Your task to perform on an android device: remove spam from my inbox in the gmail app Image 0: 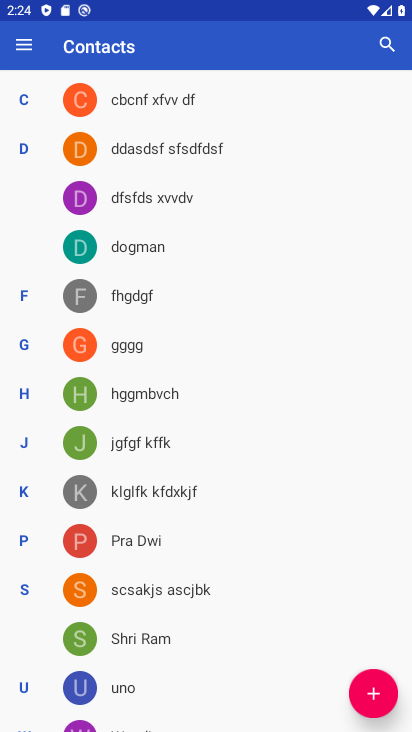
Step 0: press home button
Your task to perform on an android device: remove spam from my inbox in the gmail app Image 1: 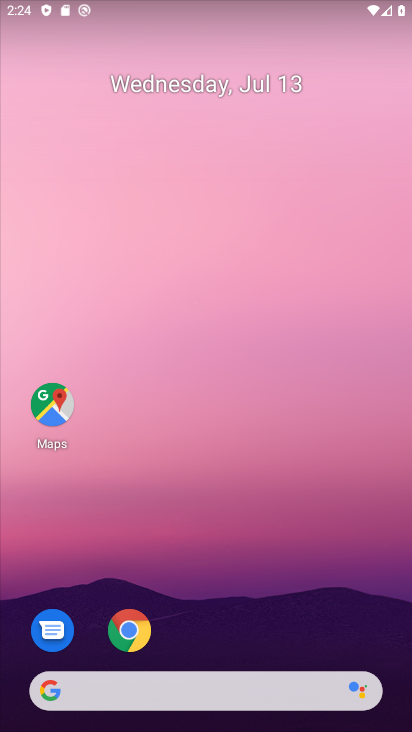
Step 1: drag from (305, 598) to (182, 108)
Your task to perform on an android device: remove spam from my inbox in the gmail app Image 2: 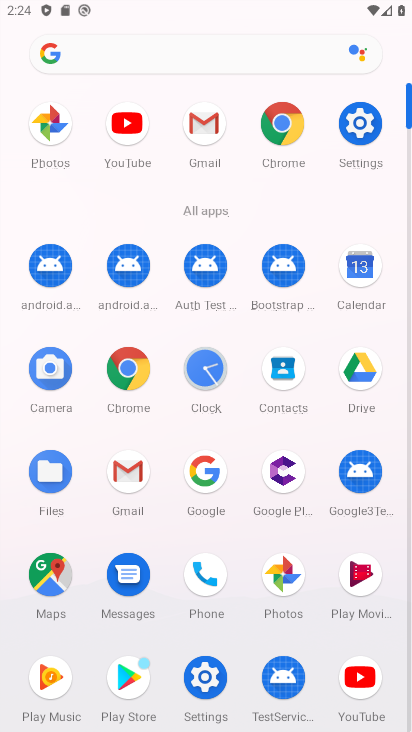
Step 2: click (195, 138)
Your task to perform on an android device: remove spam from my inbox in the gmail app Image 3: 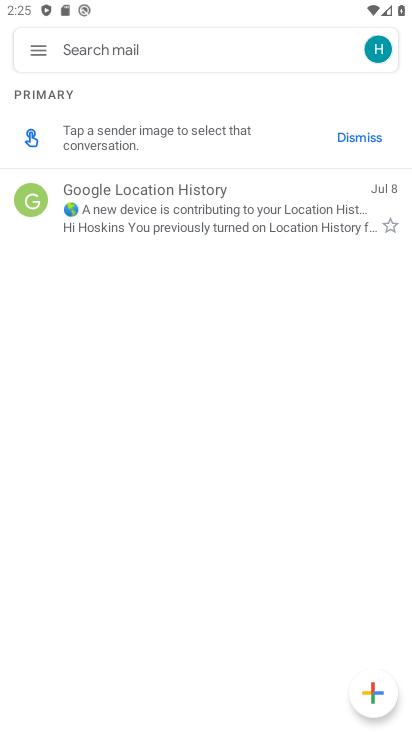
Step 3: click (39, 49)
Your task to perform on an android device: remove spam from my inbox in the gmail app Image 4: 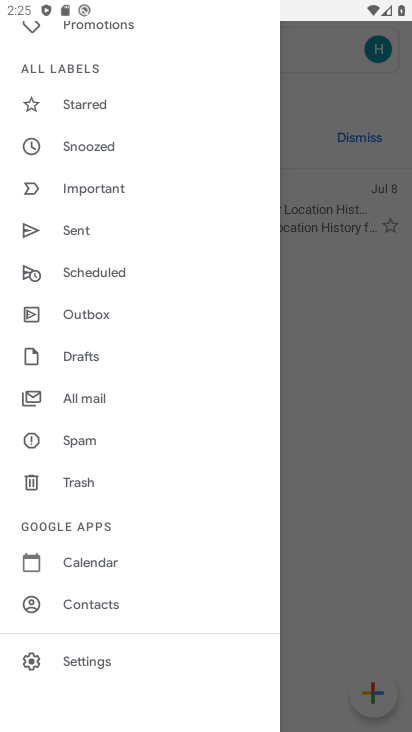
Step 4: click (134, 427)
Your task to perform on an android device: remove spam from my inbox in the gmail app Image 5: 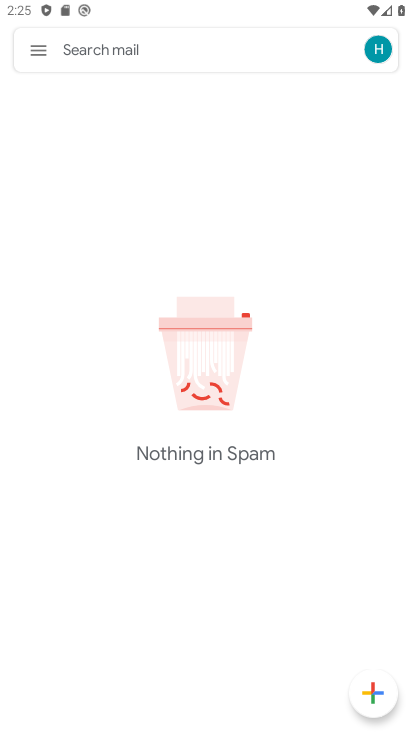
Step 5: task complete